Your task to perform on an android device: Is it going to rain this weekend? Image 0: 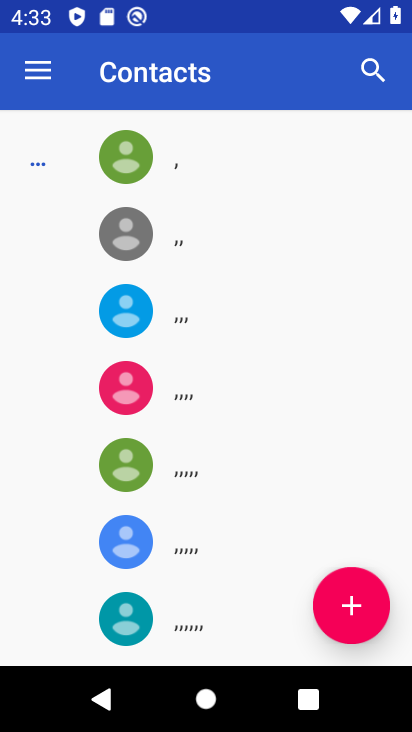
Step 0: press home button
Your task to perform on an android device: Is it going to rain this weekend? Image 1: 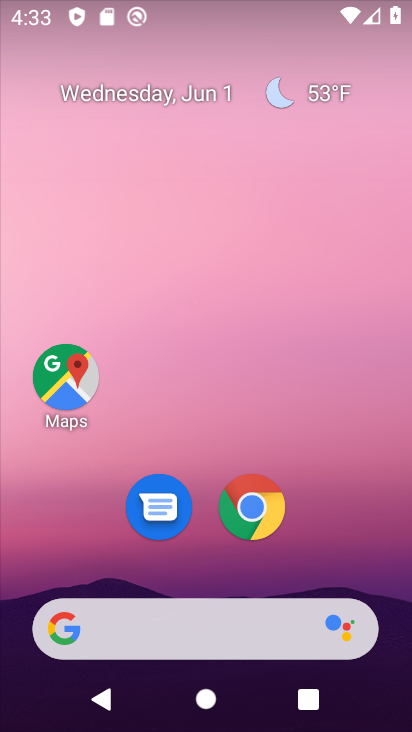
Step 1: drag from (351, 582) to (345, 2)
Your task to perform on an android device: Is it going to rain this weekend? Image 2: 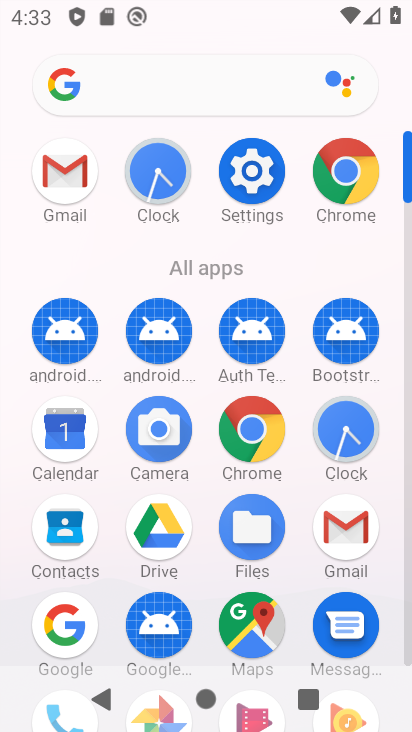
Step 2: press home button
Your task to perform on an android device: Is it going to rain this weekend? Image 3: 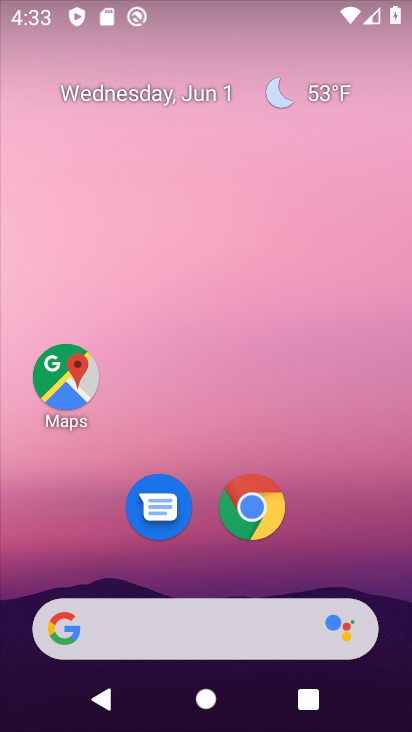
Step 3: click (307, 103)
Your task to perform on an android device: Is it going to rain this weekend? Image 4: 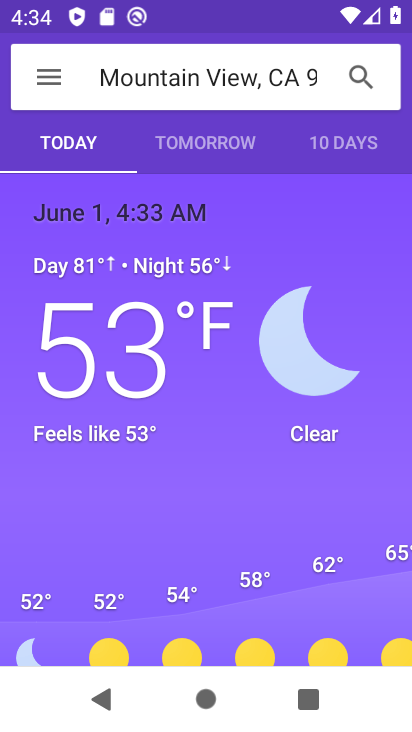
Step 4: click (348, 156)
Your task to perform on an android device: Is it going to rain this weekend? Image 5: 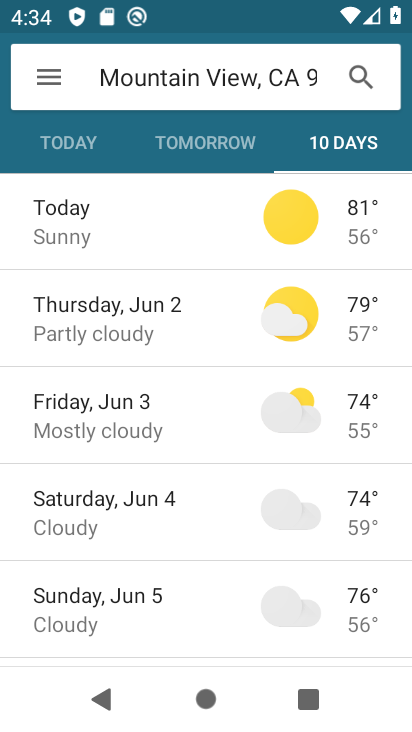
Step 5: task complete